Your task to perform on an android device: change the clock display to show seconds Image 0: 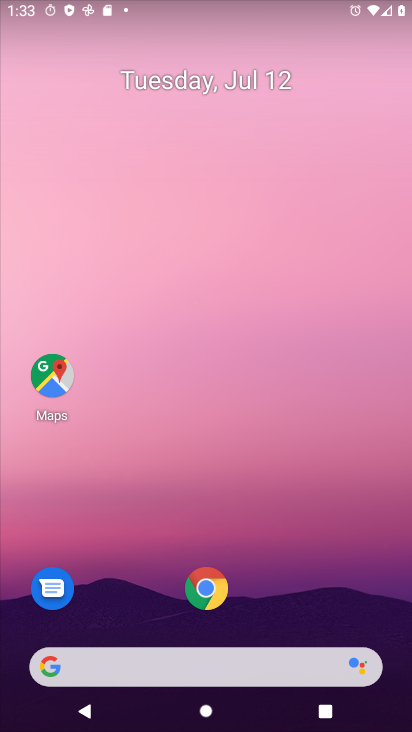
Step 0: press home button
Your task to perform on an android device: change the clock display to show seconds Image 1: 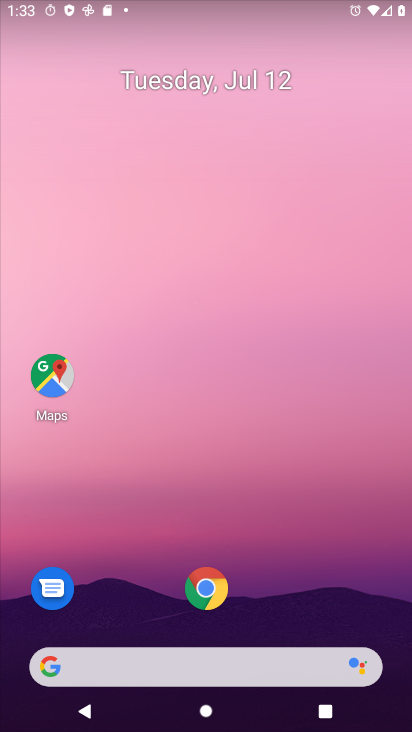
Step 1: drag from (200, 670) to (322, 81)
Your task to perform on an android device: change the clock display to show seconds Image 2: 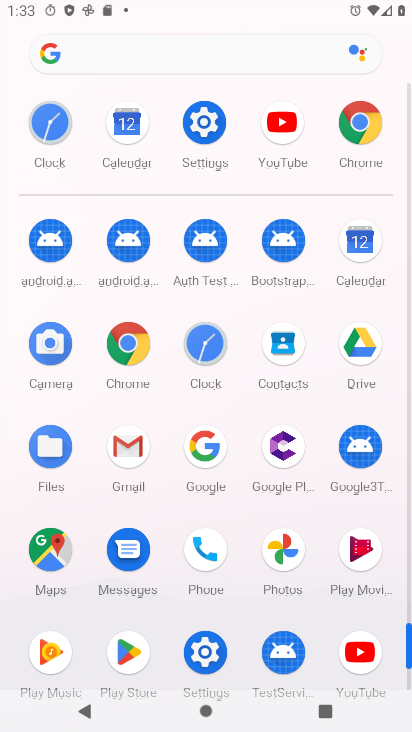
Step 2: click (203, 342)
Your task to perform on an android device: change the clock display to show seconds Image 3: 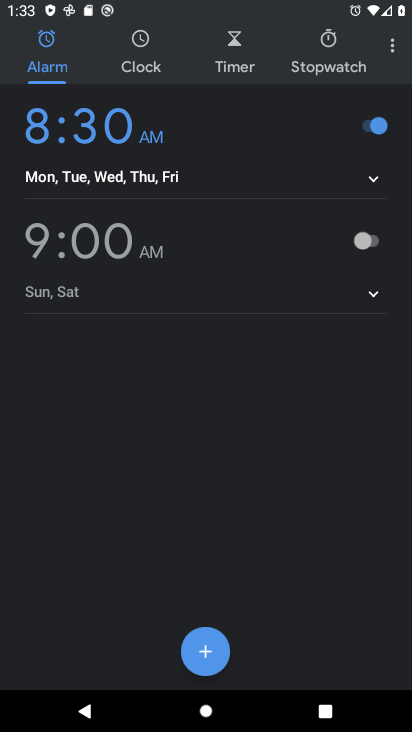
Step 3: click (396, 41)
Your task to perform on an android device: change the clock display to show seconds Image 4: 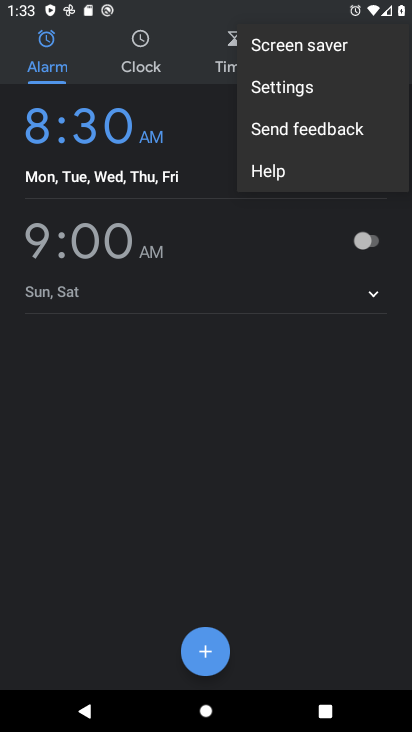
Step 4: click (297, 94)
Your task to perform on an android device: change the clock display to show seconds Image 5: 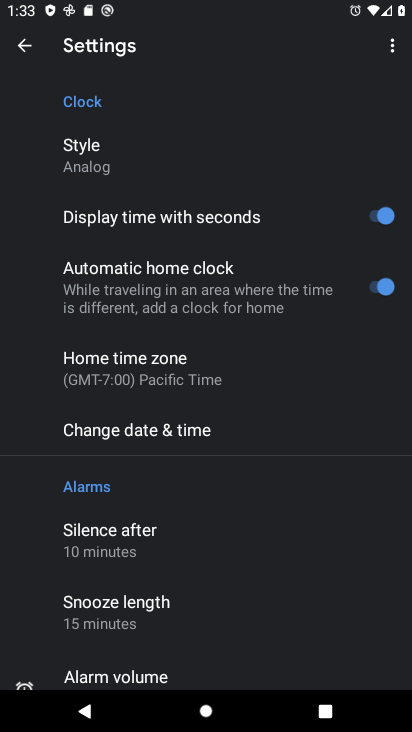
Step 5: task complete